Your task to perform on an android device: Open my contact list Image 0: 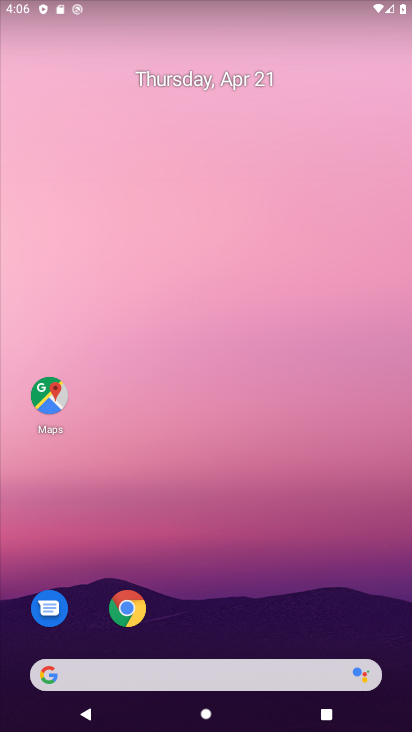
Step 0: drag from (233, 593) to (232, 138)
Your task to perform on an android device: Open my contact list Image 1: 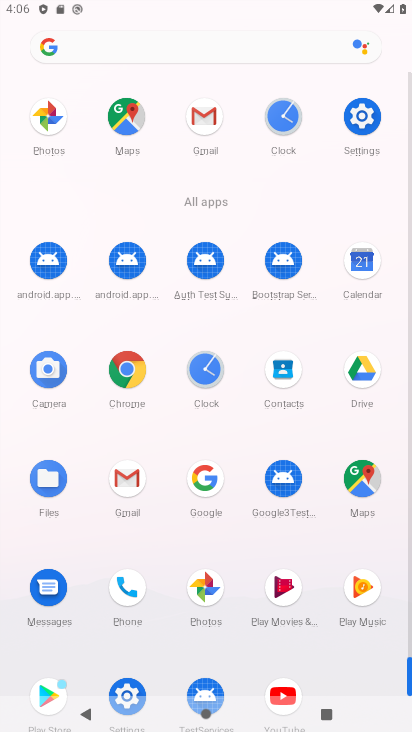
Step 1: click (283, 373)
Your task to perform on an android device: Open my contact list Image 2: 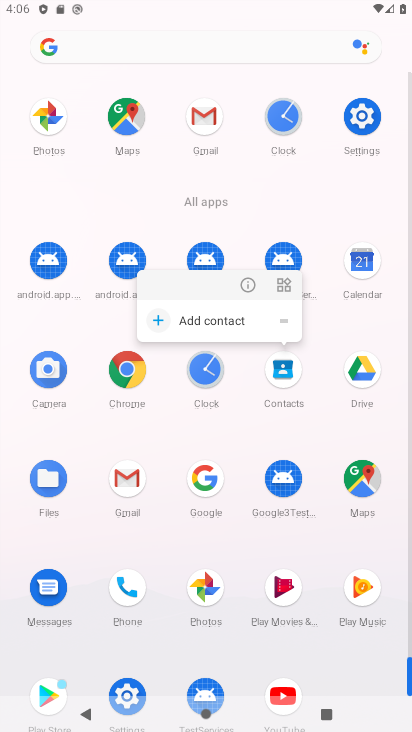
Step 2: click (276, 385)
Your task to perform on an android device: Open my contact list Image 3: 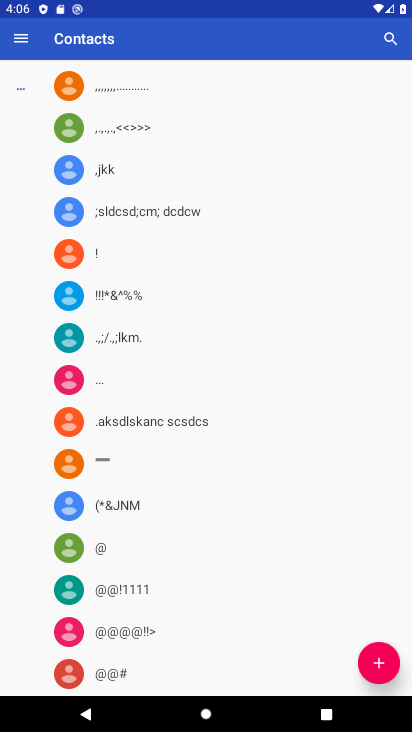
Step 3: task complete